Your task to perform on an android device: turn on priority inbox in the gmail app Image 0: 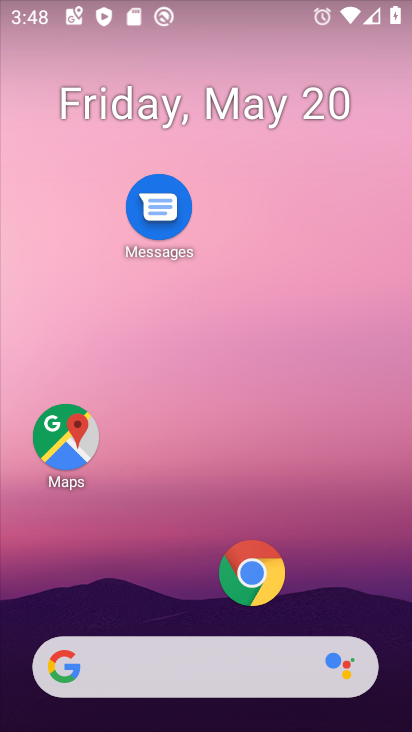
Step 0: drag from (214, 634) to (374, 640)
Your task to perform on an android device: turn on priority inbox in the gmail app Image 1: 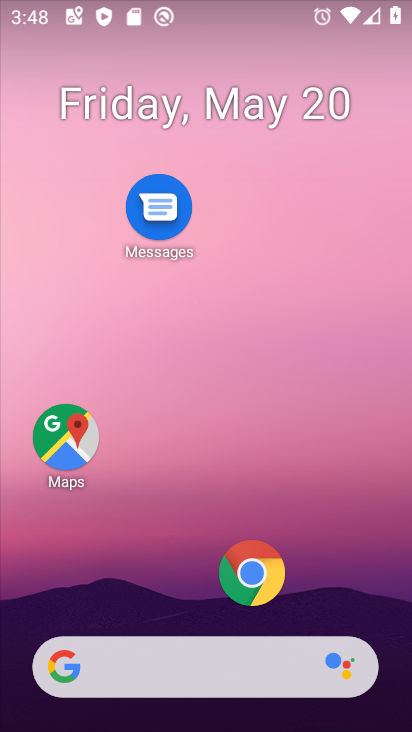
Step 1: click (356, 489)
Your task to perform on an android device: turn on priority inbox in the gmail app Image 2: 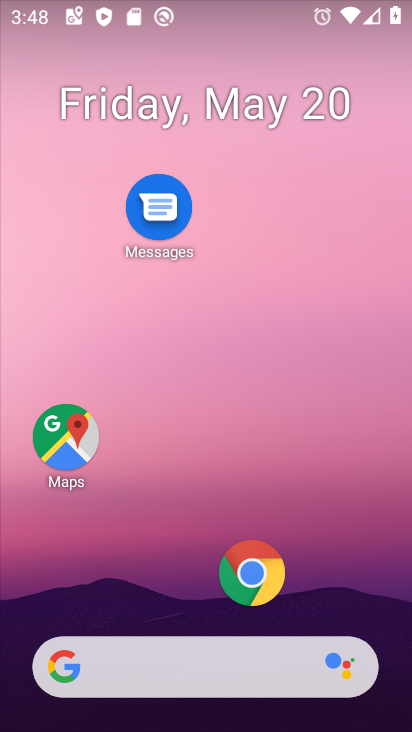
Step 2: drag from (323, 605) to (261, 9)
Your task to perform on an android device: turn on priority inbox in the gmail app Image 3: 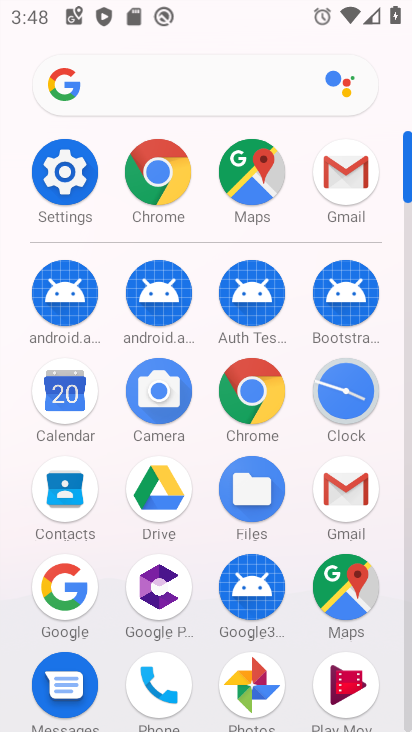
Step 3: click (341, 489)
Your task to perform on an android device: turn on priority inbox in the gmail app Image 4: 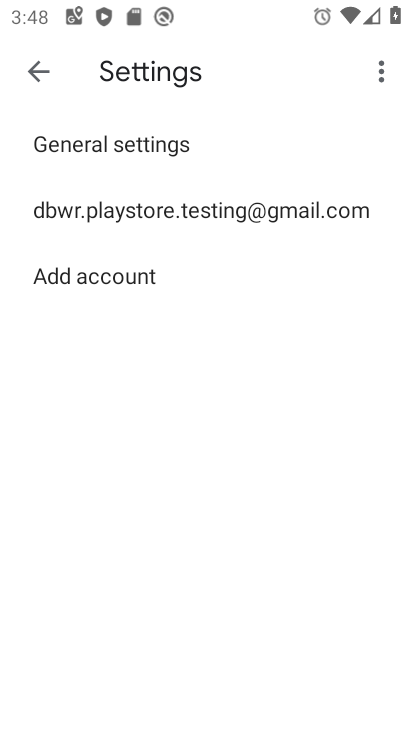
Step 4: click (139, 234)
Your task to perform on an android device: turn on priority inbox in the gmail app Image 5: 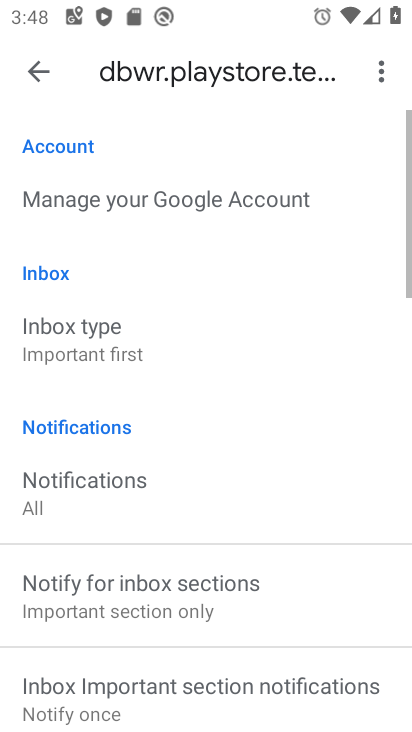
Step 5: click (52, 320)
Your task to perform on an android device: turn on priority inbox in the gmail app Image 6: 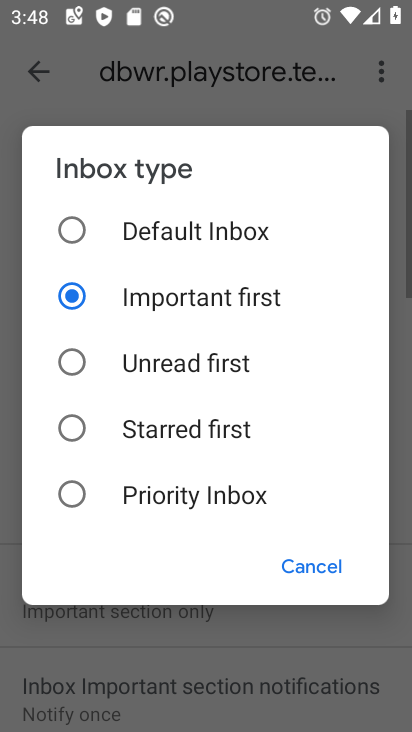
Step 6: click (128, 484)
Your task to perform on an android device: turn on priority inbox in the gmail app Image 7: 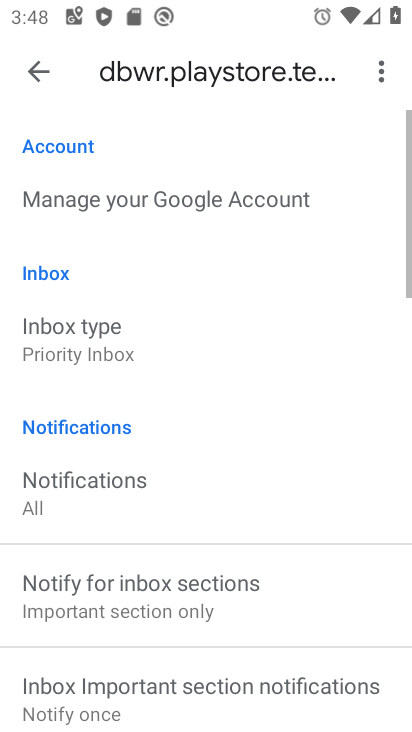
Step 7: task complete